Your task to perform on an android device: Open Google Maps and go to "Timeline" Image 0: 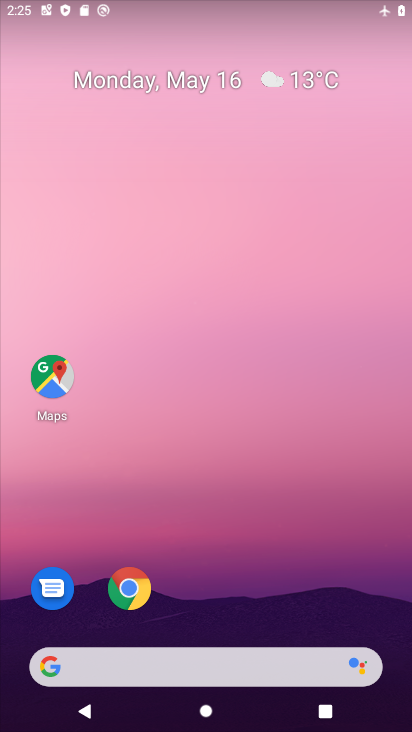
Step 0: drag from (282, 647) to (279, 28)
Your task to perform on an android device: Open Google Maps and go to "Timeline" Image 1: 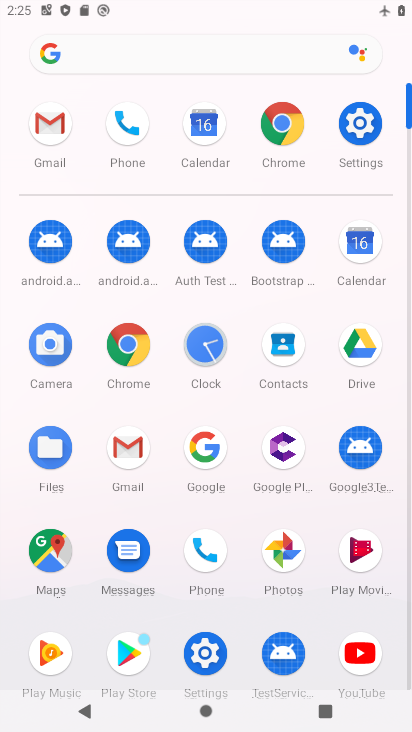
Step 1: click (49, 564)
Your task to perform on an android device: Open Google Maps and go to "Timeline" Image 2: 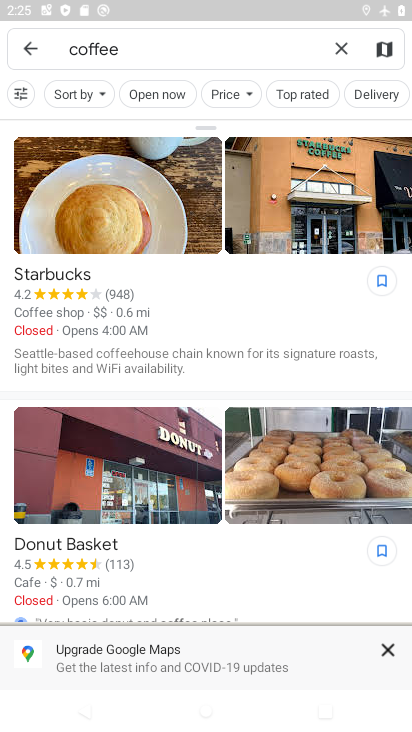
Step 2: press back button
Your task to perform on an android device: Open Google Maps and go to "Timeline" Image 3: 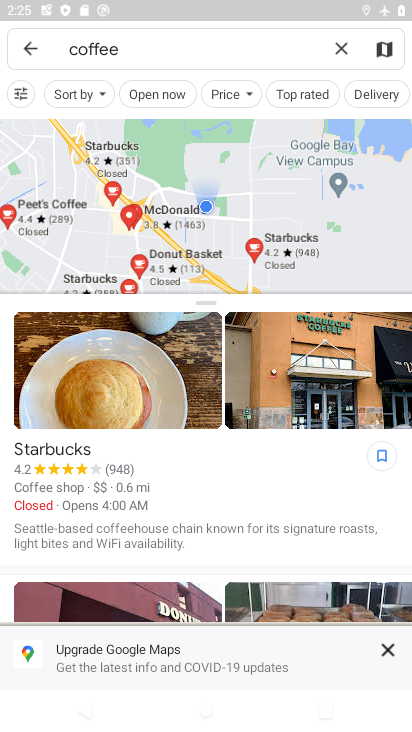
Step 3: click (21, 52)
Your task to perform on an android device: Open Google Maps and go to "Timeline" Image 4: 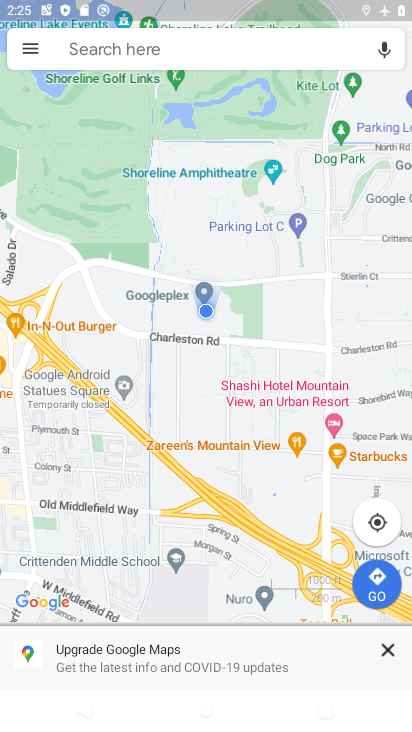
Step 4: click (33, 47)
Your task to perform on an android device: Open Google Maps and go to "Timeline" Image 5: 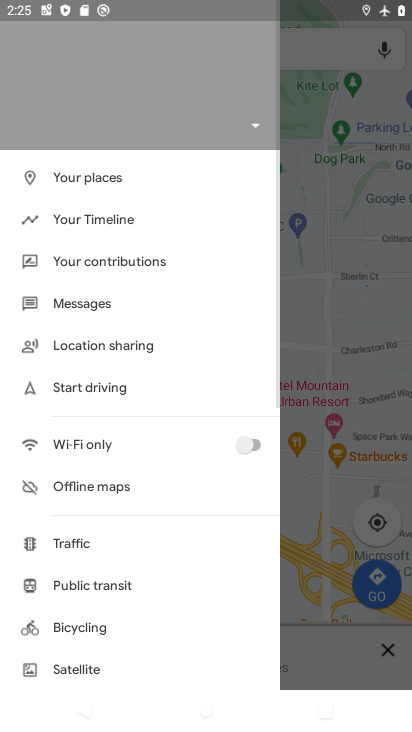
Step 5: click (130, 224)
Your task to perform on an android device: Open Google Maps and go to "Timeline" Image 6: 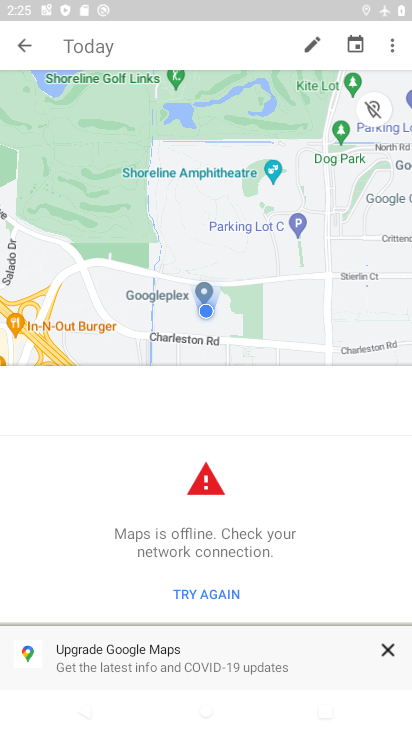
Step 6: task complete